Your task to perform on an android device: turn pop-ups off in chrome Image 0: 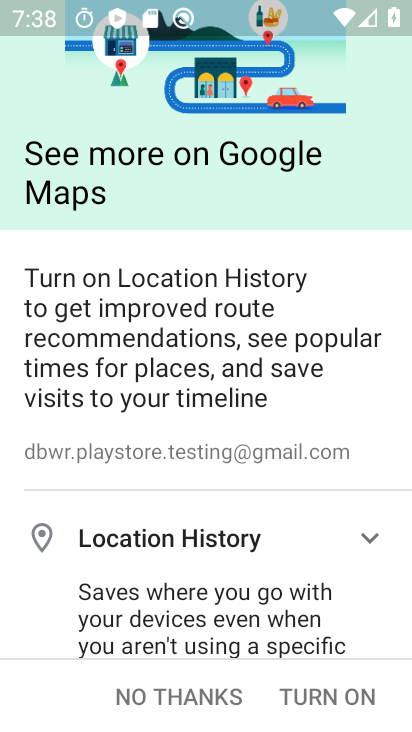
Step 0: press home button
Your task to perform on an android device: turn pop-ups off in chrome Image 1: 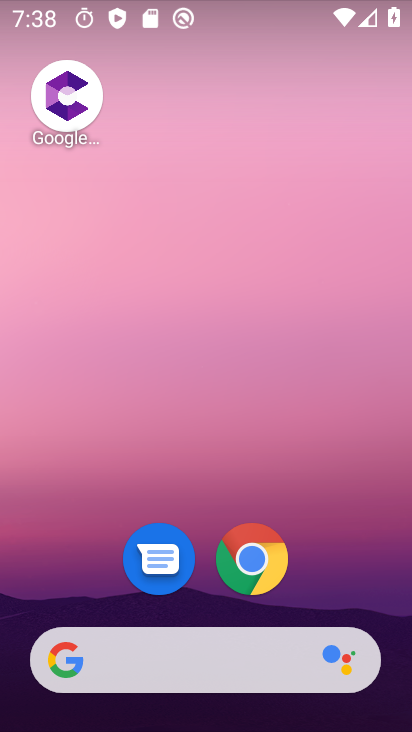
Step 1: click (270, 566)
Your task to perform on an android device: turn pop-ups off in chrome Image 2: 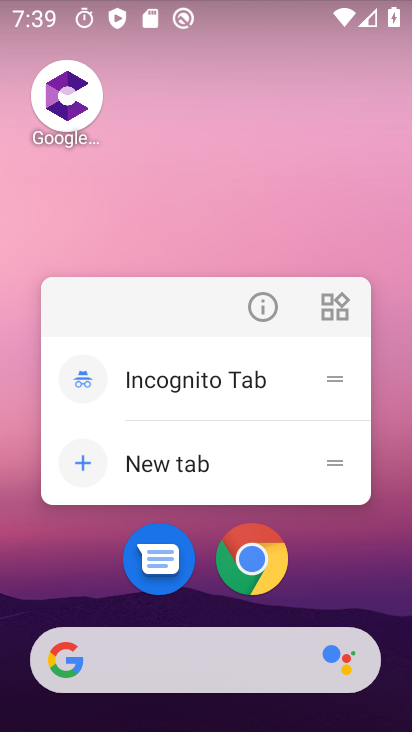
Step 2: click (258, 568)
Your task to perform on an android device: turn pop-ups off in chrome Image 3: 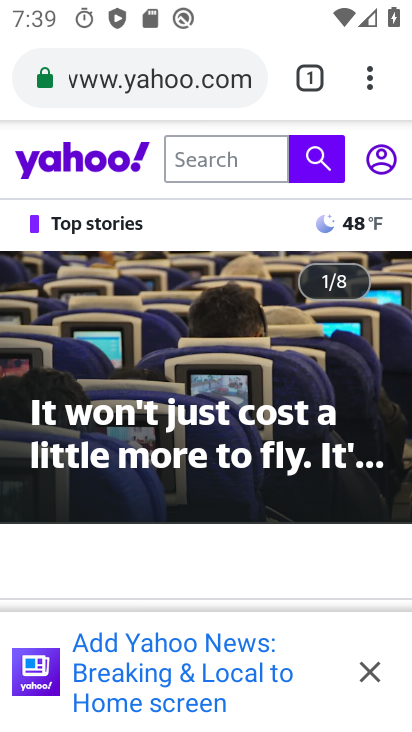
Step 3: click (374, 79)
Your task to perform on an android device: turn pop-ups off in chrome Image 4: 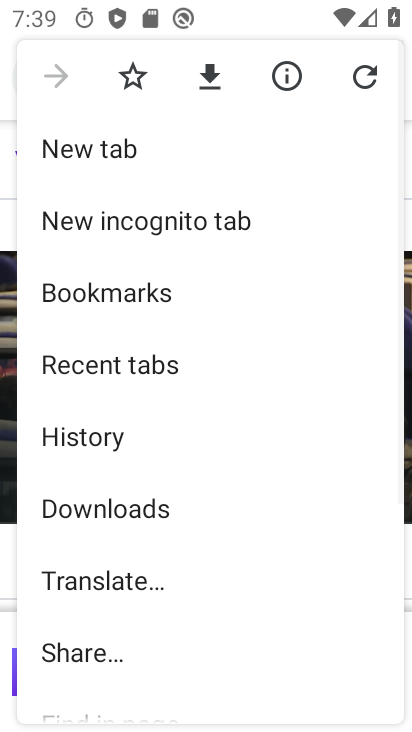
Step 4: drag from (196, 578) to (204, 186)
Your task to perform on an android device: turn pop-ups off in chrome Image 5: 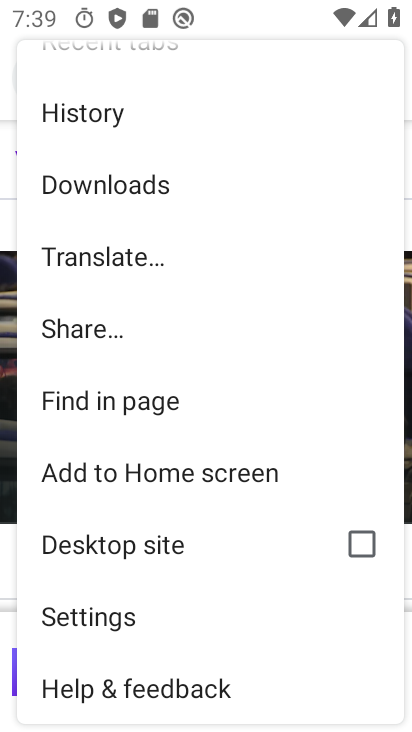
Step 5: click (110, 620)
Your task to perform on an android device: turn pop-ups off in chrome Image 6: 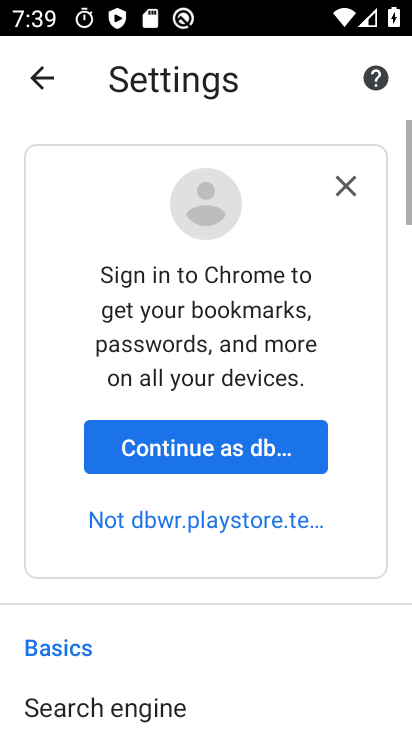
Step 6: drag from (229, 649) to (188, 179)
Your task to perform on an android device: turn pop-ups off in chrome Image 7: 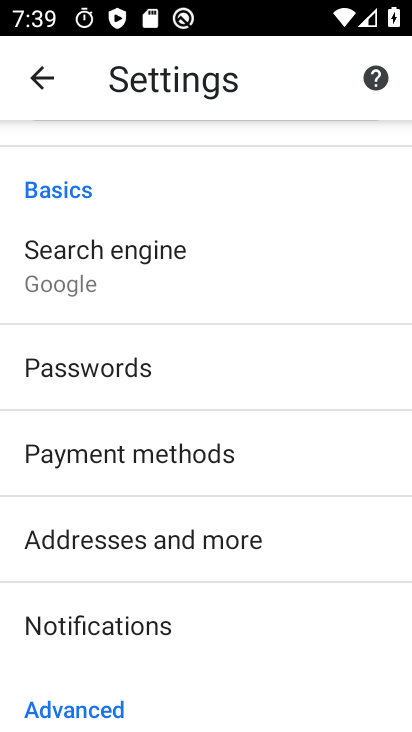
Step 7: drag from (197, 583) to (167, 210)
Your task to perform on an android device: turn pop-ups off in chrome Image 8: 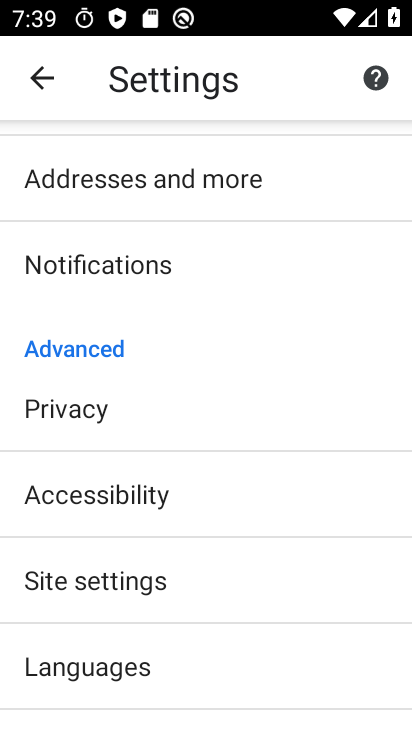
Step 8: click (174, 584)
Your task to perform on an android device: turn pop-ups off in chrome Image 9: 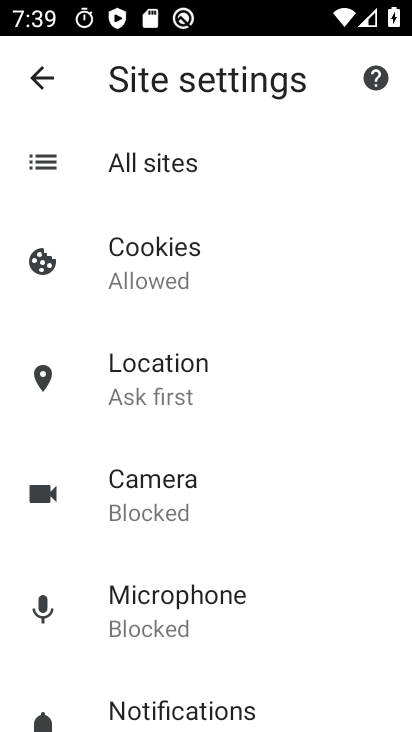
Step 9: drag from (281, 667) to (270, 310)
Your task to perform on an android device: turn pop-ups off in chrome Image 10: 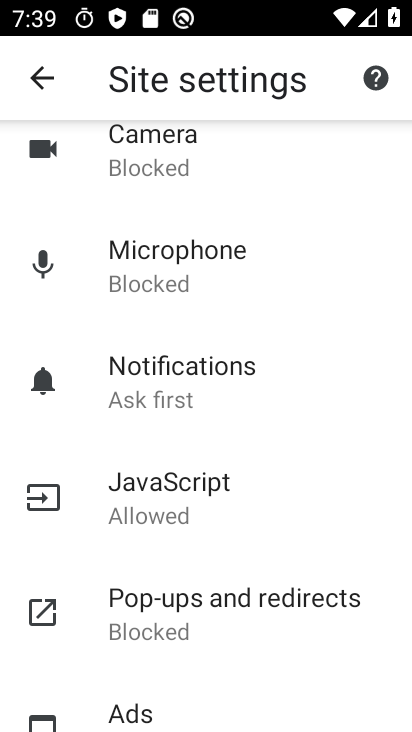
Step 10: click (186, 596)
Your task to perform on an android device: turn pop-ups off in chrome Image 11: 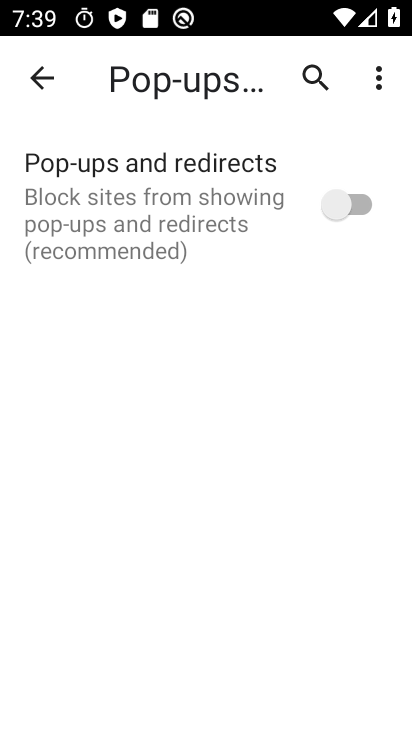
Step 11: task complete